Your task to perform on an android device: Clear the cart on ebay.com. Add macbook pro 15 inch to the cart on ebay.com, then select checkout. Image 0: 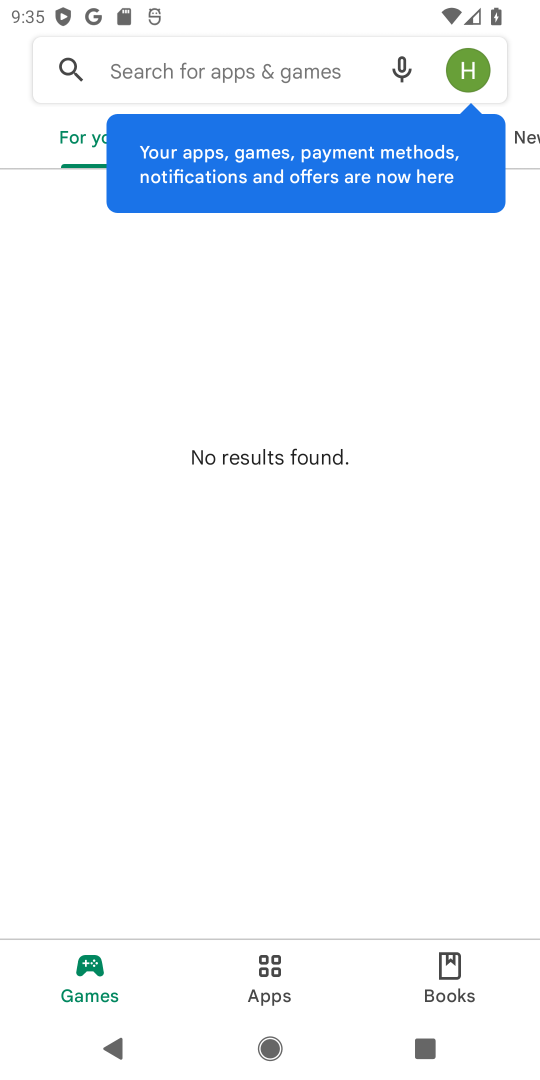
Step 0: press home button
Your task to perform on an android device: Clear the cart on ebay.com. Add macbook pro 15 inch to the cart on ebay.com, then select checkout. Image 1: 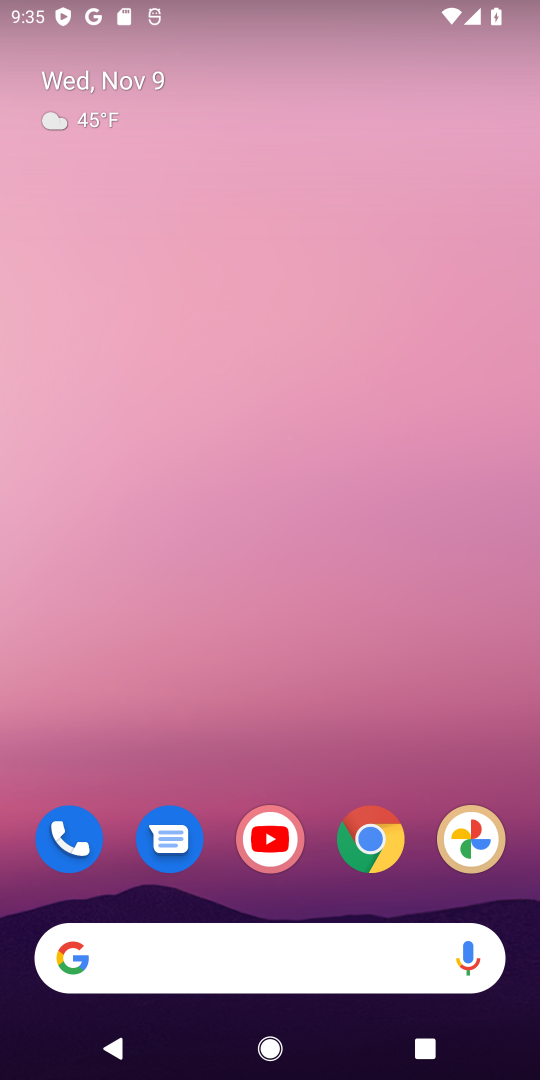
Step 1: drag from (309, 744) to (341, 0)
Your task to perform on an android device: Clear the cart on ebay.com. Add macbook pro 15 inch to the cart on ebay.com, then select checkout. Image 2: 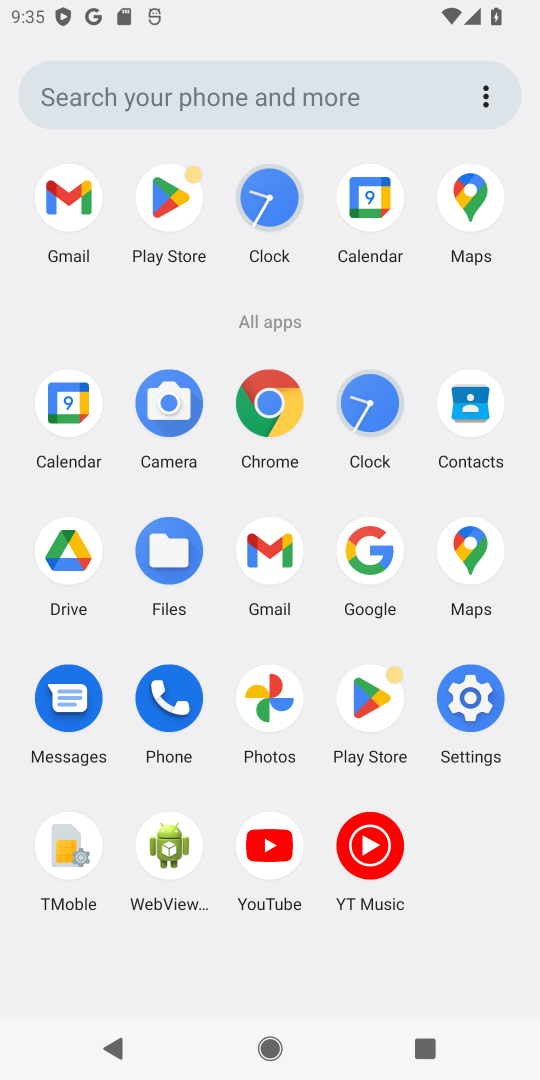
Step 2: click (280, 410)
Your task to perform on an android device: Clear the cart on ebay.com. Add macbook pro 15 inch to the cart on ebay.com, then select checkout. Image 3: 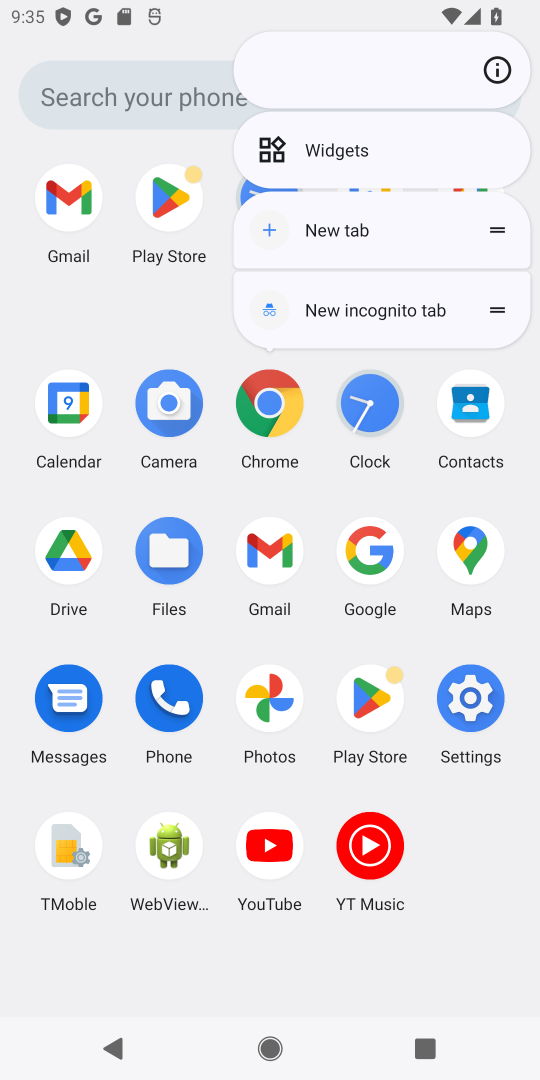
Step 3: click (271, 415)
Your task to perform on an android device: Clear the cart on ebay.com. Add macbook pro 15 inch to the cart on ebay.com, then select checkout. Image 4: 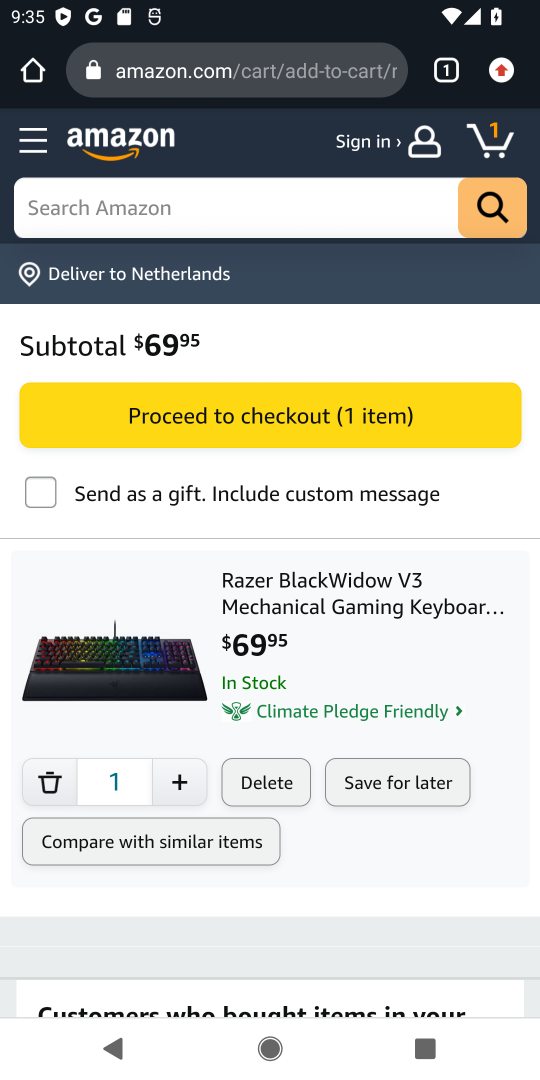
Step 4: click (217, 75)
Your task to perform on an android device: Clear the cart on ebay.com. Add macbook pro 15 inch to the cart on ebay.com, then select checkout. Image 5: 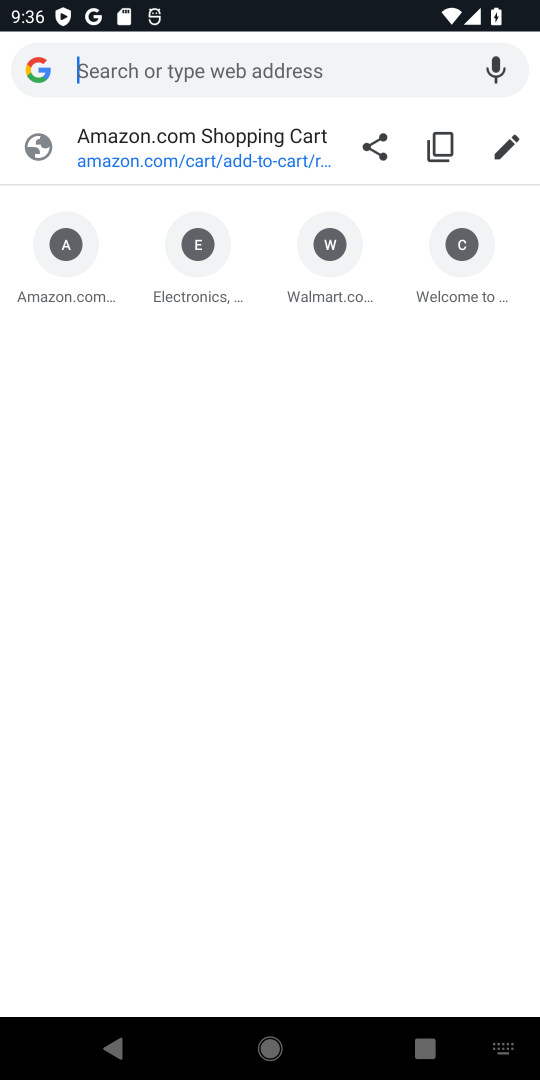
Step 5: type "ebay.com"
Your task to perform on an android device: Clear the cart on ebay.com. Add macbook pro 15 inch to the cart on ebay.com, then select checkout. Image 6: 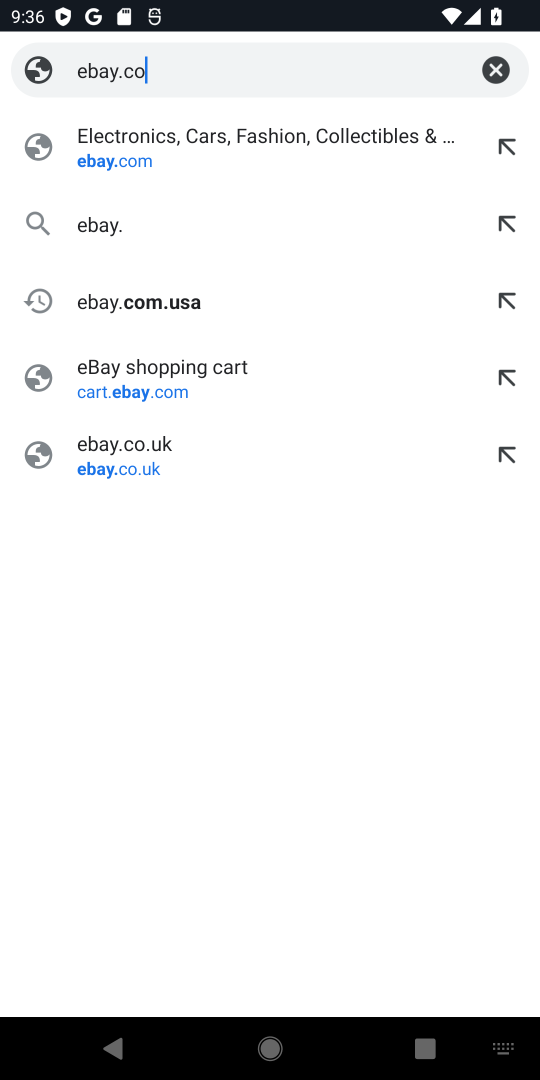
Step 6: press enter
Your task to perform on an android device: Clear the cart on ebay.com. Add macbook pro 15 inch to the cart on ebay.com, then select checkout. Image 7: 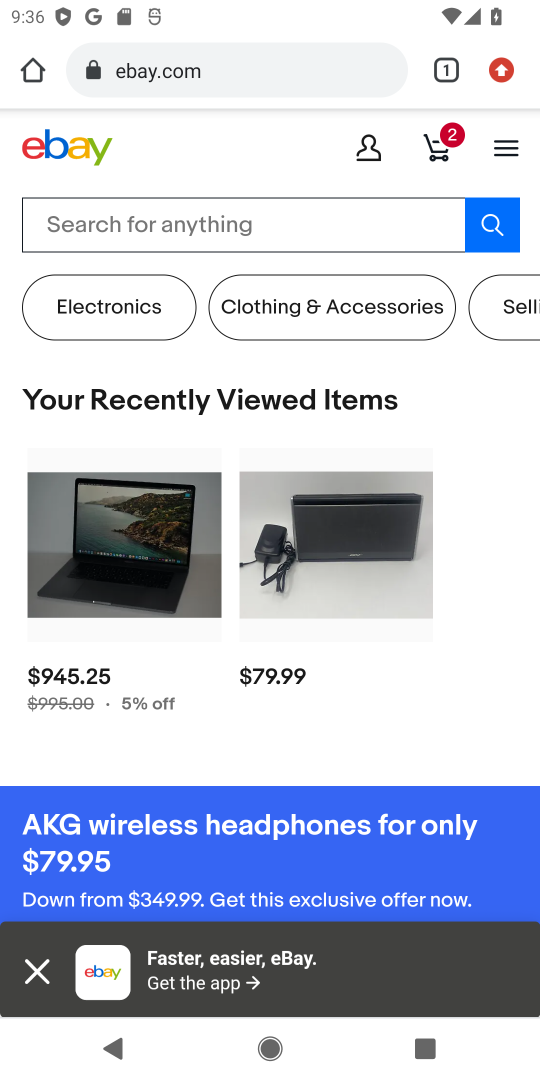
Step 7: click (192, 216)
Your task to perform on an android device: Clear the cart on ebay.com. Add macbook pro 15 inch to the cart on ebay.com, then select checkout. Image 8: 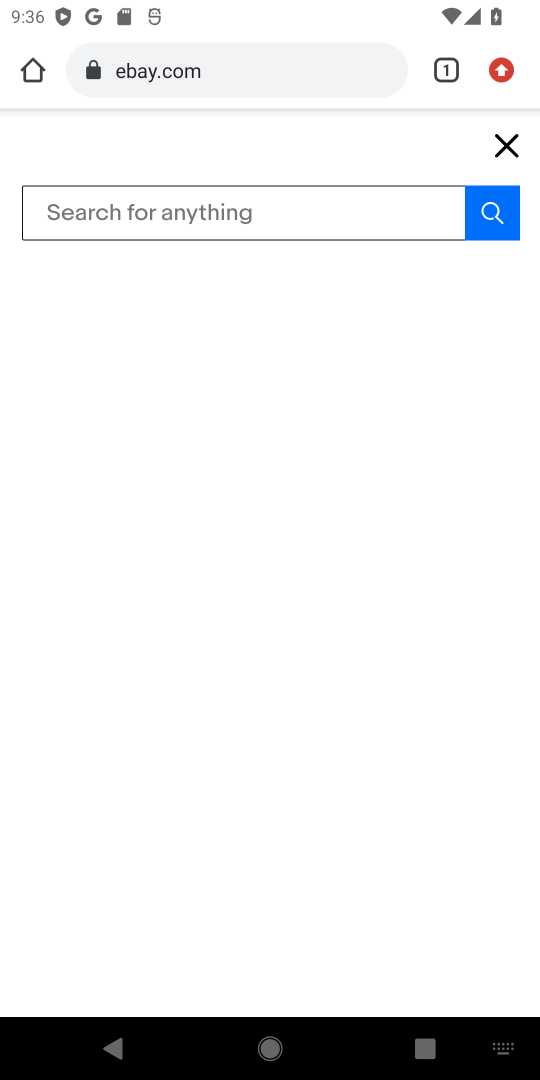
Step 8: type "macbook pro 15 inch"
Your task to perform on an android device: Clear the cart on ebay.com. Add macbook pro 15 inch to the cart on ebay.com, then select checkout. Image 9: 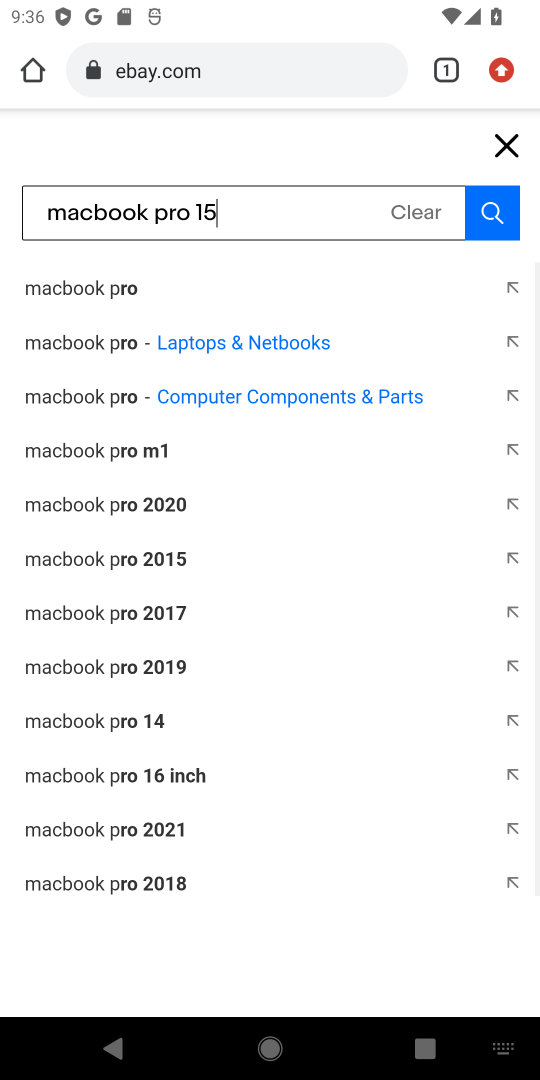
Step 9: press enter
Your task to perform on an android device: Clear the cart on ebay.com. Add macbook pro 15 inch to the cart on ebay.com, then select checkout. Image 10: 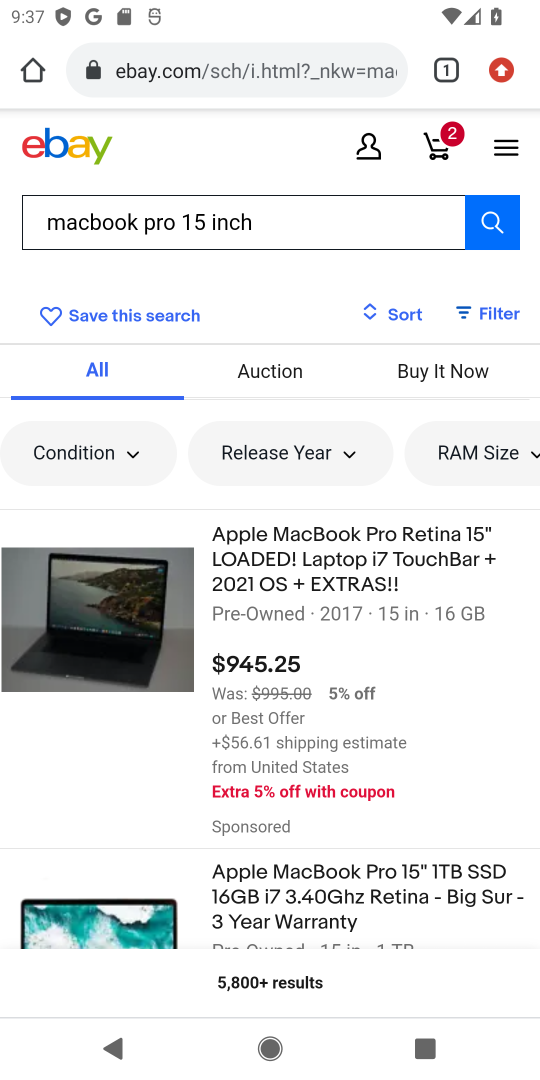
Step 10: click (256, 564)
Your task to perform on an android device: Clear the cart on ebay.com. Add macbook pro 15 inch to the cart on ebay.com, then select checkout. Image 11: 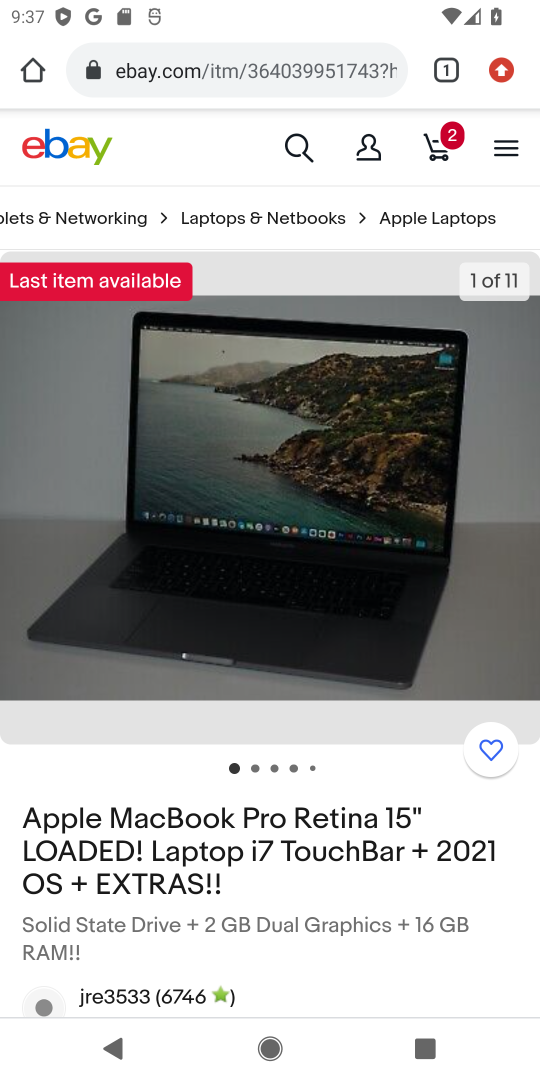
Step 11: drag from (340, 864) to (348, 452)
Your task to perform on an android device: Clear the cart on ebay.com. Add macbook pro 15 inch to the cart on ebay.com, then select checkout. Image 12: 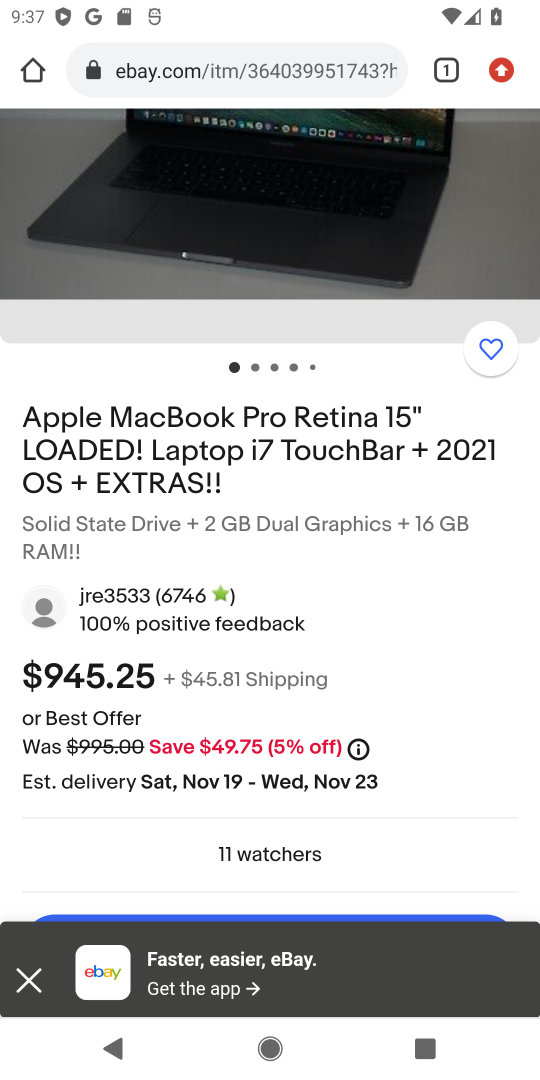
Step 12: drag from (223, 720) to (327, 316)
Your task to perform on an android device: Clear the cart on ebay.com. Add macbook pro 15 inch to the cart on ebay.com, then select checkout. Image 13: 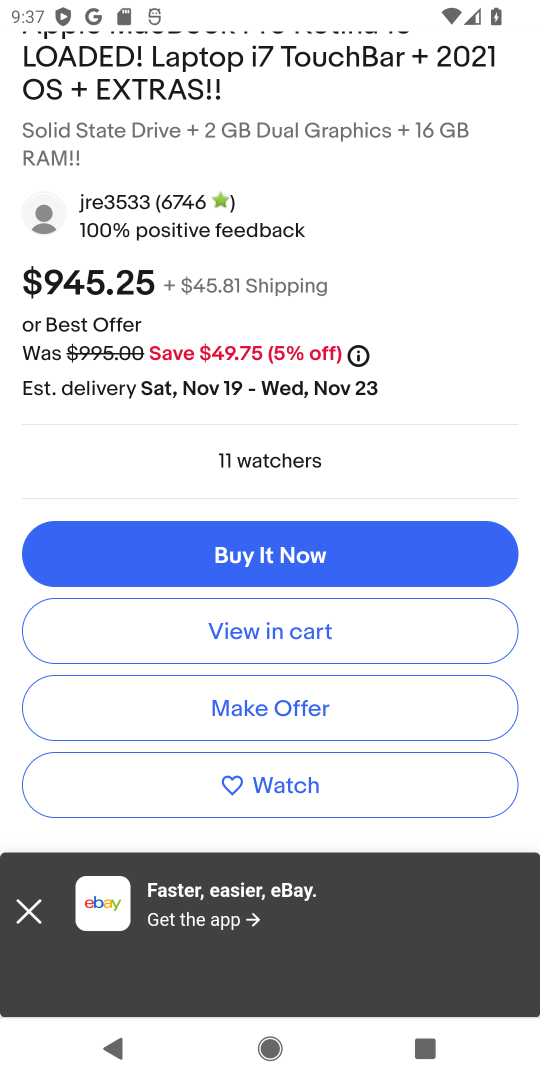
Step 13: click (231, 634)
Your task to perform on an android device: Clear the cart on ebay.com. Add macbook pro 15 inch to the cart on ebay.com, then select checkout. Image 14: 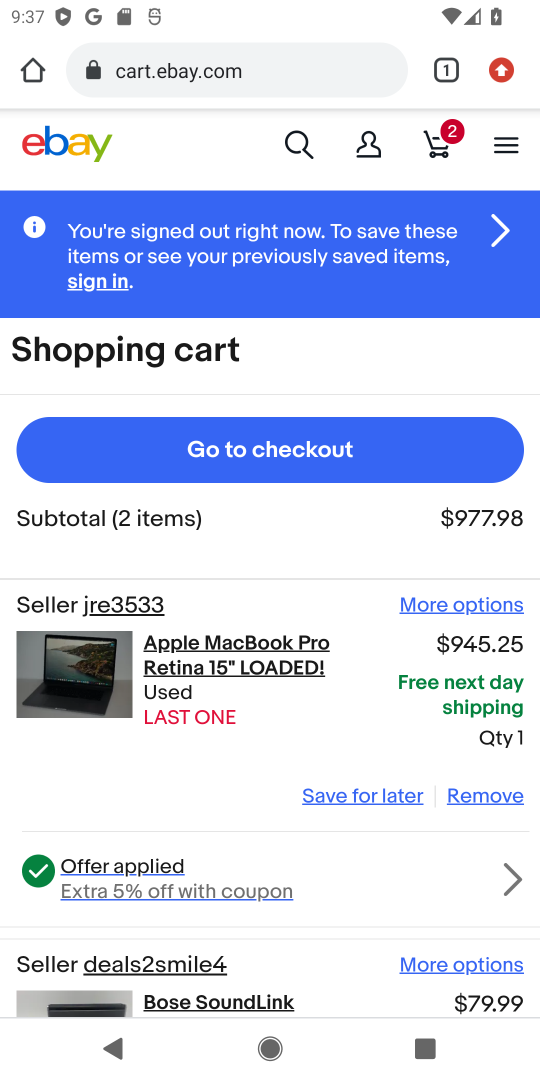
Step 14: click (270, 456)
Your task to perform on an android device: Clear the cart on ebay.com. Add macbook pro 15 inch to the cart on ebay.com, then select checkout. Image 15: 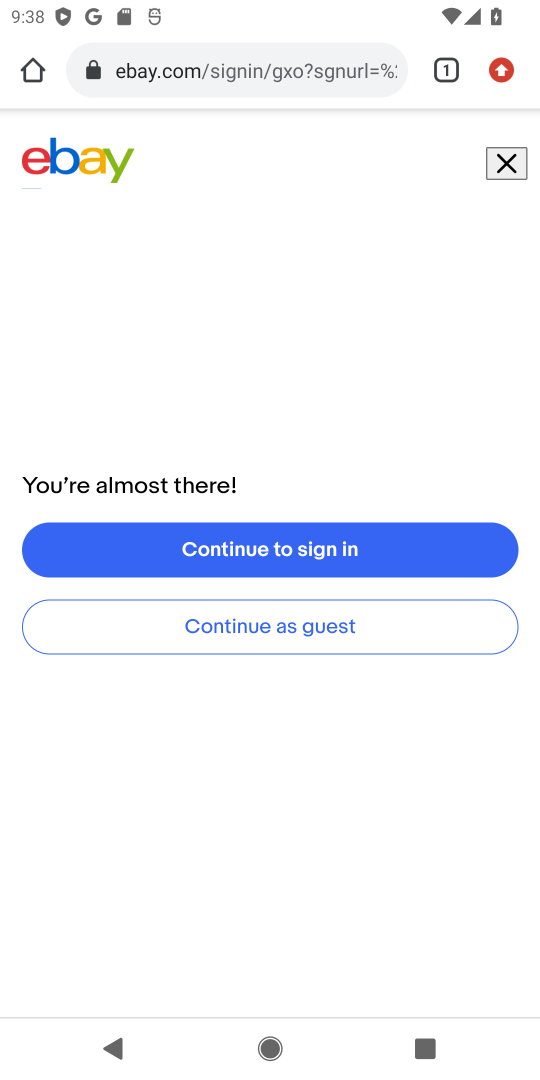
Step 15: task complete